Your task to perform on an android device: Search for asus zenbook on ebay, select the first entry, add it to the cart, then select checkout. Image 0: 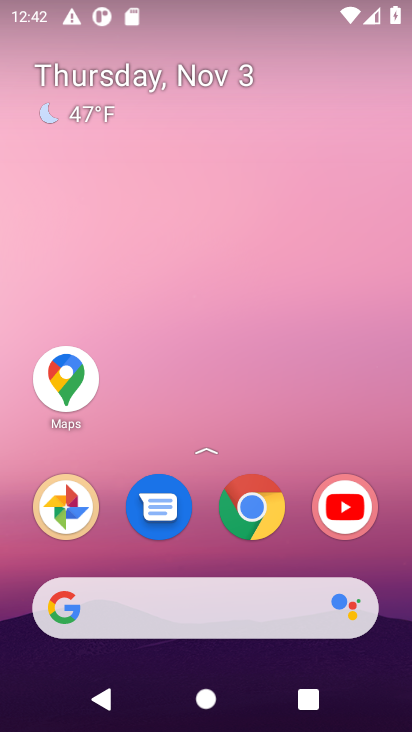
Step 0: click (272, 630)
Your task to perform on an android device: Search for asus zenbook on ebay, select the first entry, add it to the cart, then select checkout. Image 1: 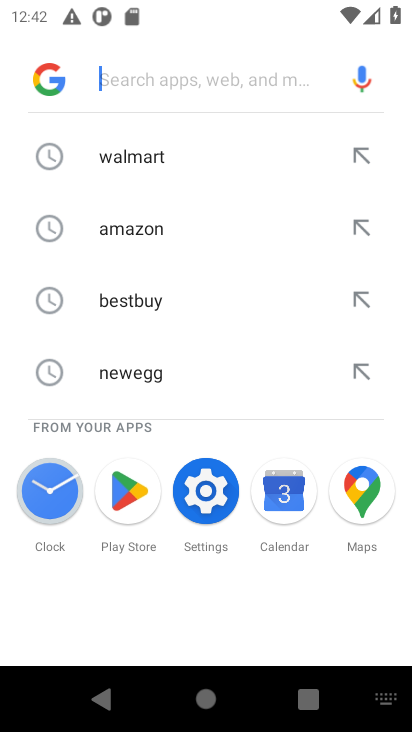
Step 1: type "ebay"
Your task to perform on an android device: Search for asus zenbook on ebay, select the first entry, add it to the cart, then select checkout. Image 2: 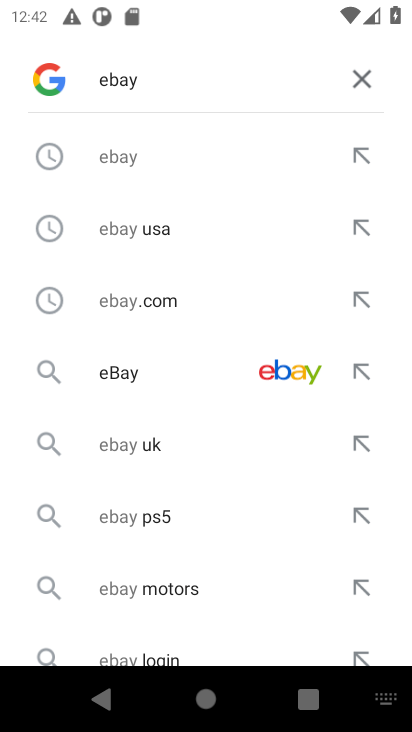
Step 2: click (188, 171)
Your task to perform on an android device: Search for asus zenbook on ebay, select the first entry, add it to the cart, then select checkout. Image 3: 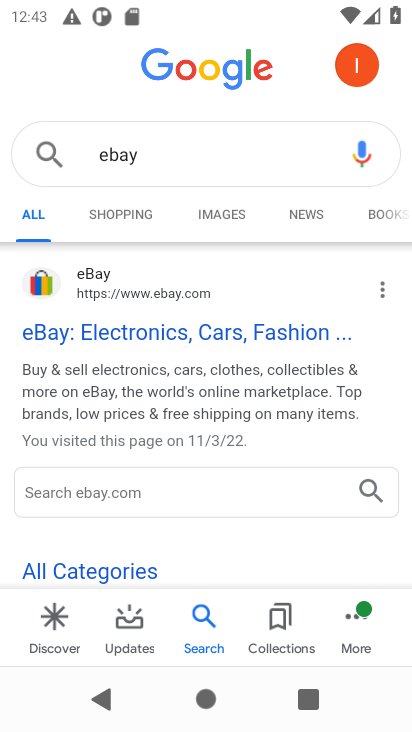
Step 3: click (144, 333)
Your task to perform on an android device: Search for asus zenbook on ebay, select the first entry, add it to the cart, then select checkout. Image 4: 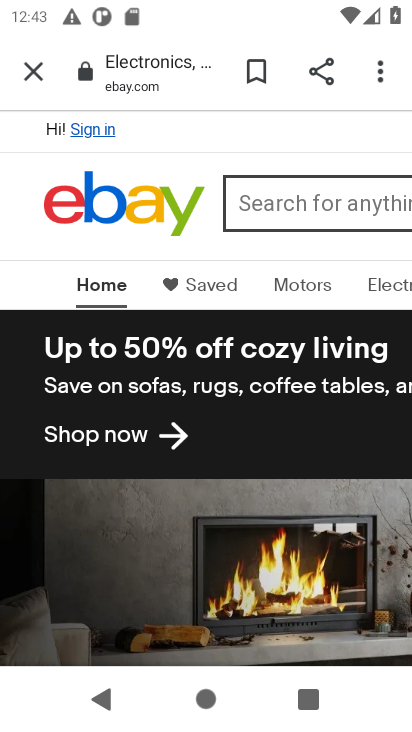
Step 4: click (335, 203)
Your task to perform on an android device: Search for asus zenbook on ebay, select the first entry, add it to the cart, then select checkout. Image 5: 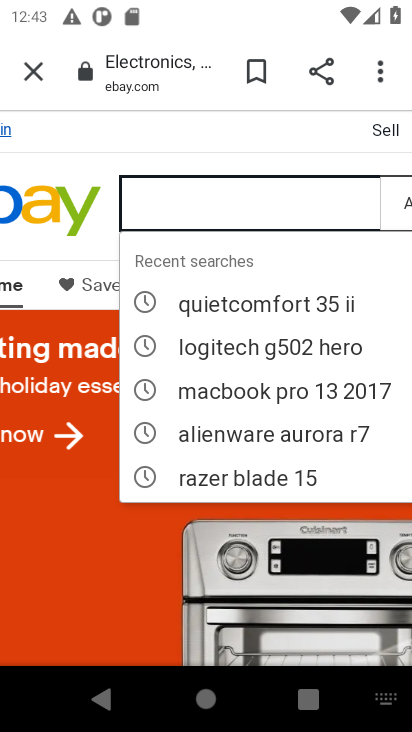
Step 5: type "asuszenbook"
Your task to perform on an android device: Search for asus zenbook on ebay, select the first entry, add it to the cart, then select checkout. Image 6: 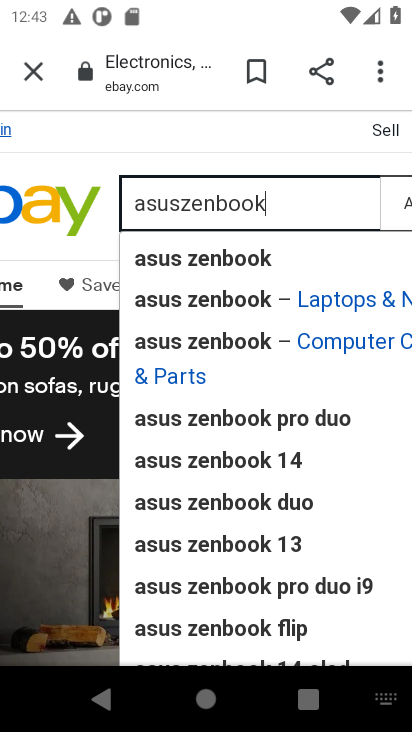
Step 6: click (260, 266)
Your task to perform on an android device: Search for asus zenbook on ebay, select the first entry, add it to the cart, then select checkout. Image 7: 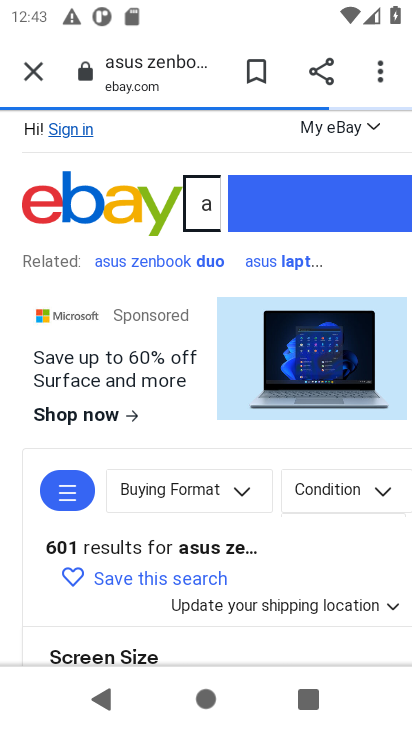
Step 7: drag from (197, 638) to (188, 218)
Your task to perform on an android device: Search for asus zenbook on ebay, select the first entry, add it to the cart, then select checkout. Image 8: 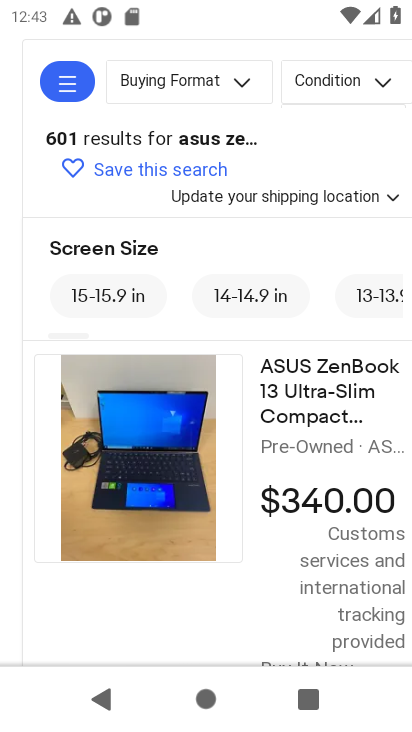
Step 8: click (327, 404)
Your task to perform on an android device: Search for asus zenbook on ebay, select the first entry, add it to the cart, then select checkout. Image 9: 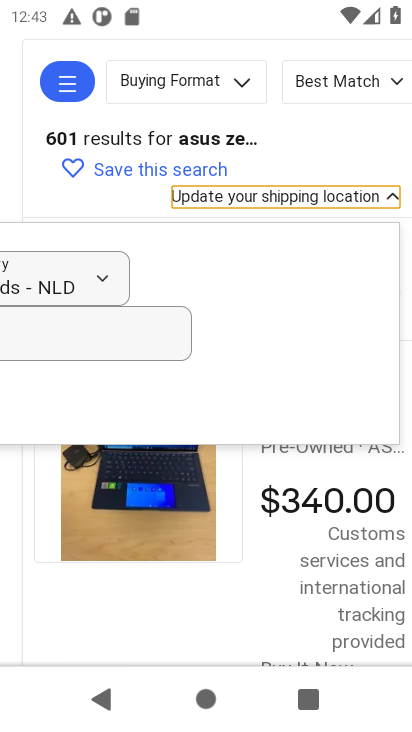
Step 9: task complete